Your task to perform on an android device: Open Google Image 0: 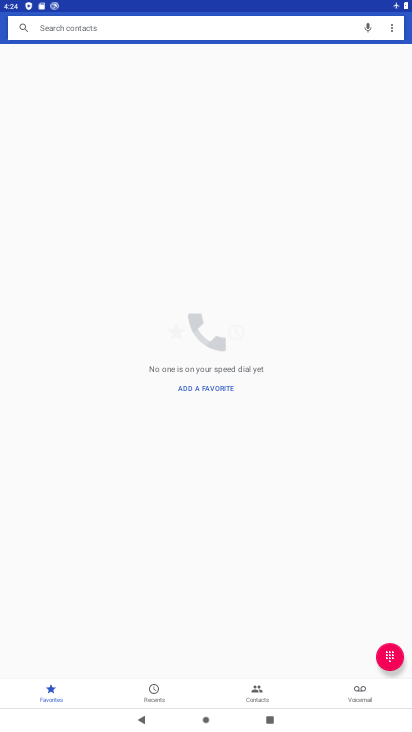
Step 0: press home button
Your task to perform on an android device: Open Google Image 1: 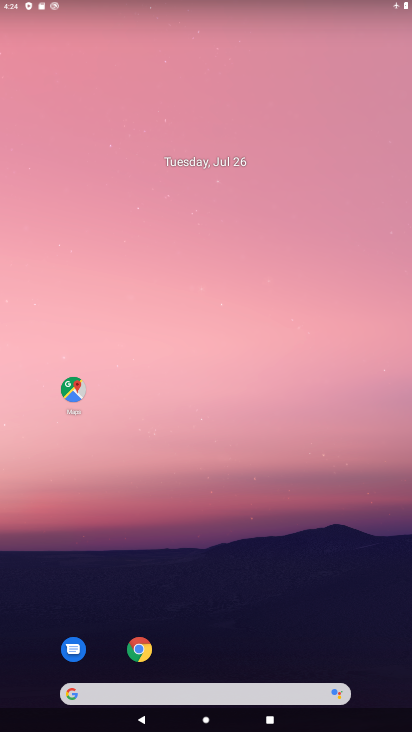
Step 1: click (225, 237)
Your task to perform on an android device: Open Google Image 2: 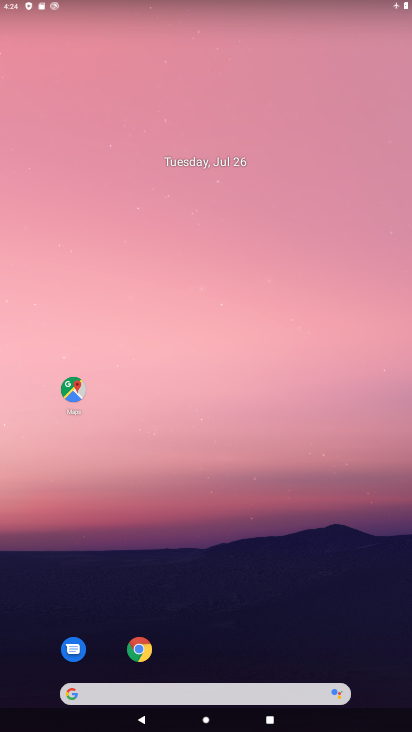
Step 2: drag from (214, 630) to (220, 207)
Your task to perform on an android device: Open Google Image 3: 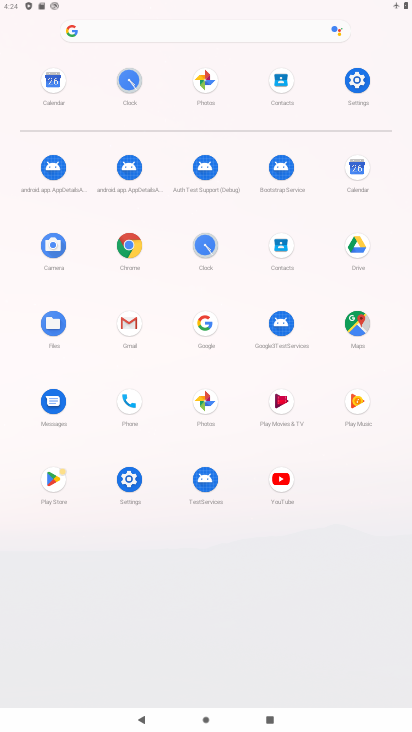
Step 3: click (209, 326)
Your task to perform on an android device: Open Google Image 4: 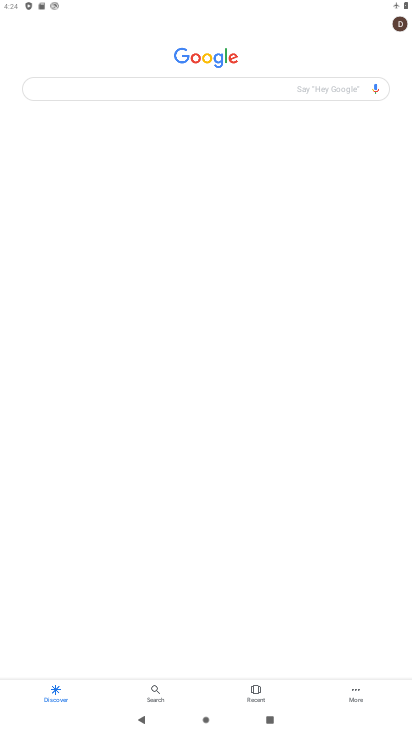
Step 4: task complete